Your task to perform on an android device: install app "WhatsApp Messenger" Image 0: 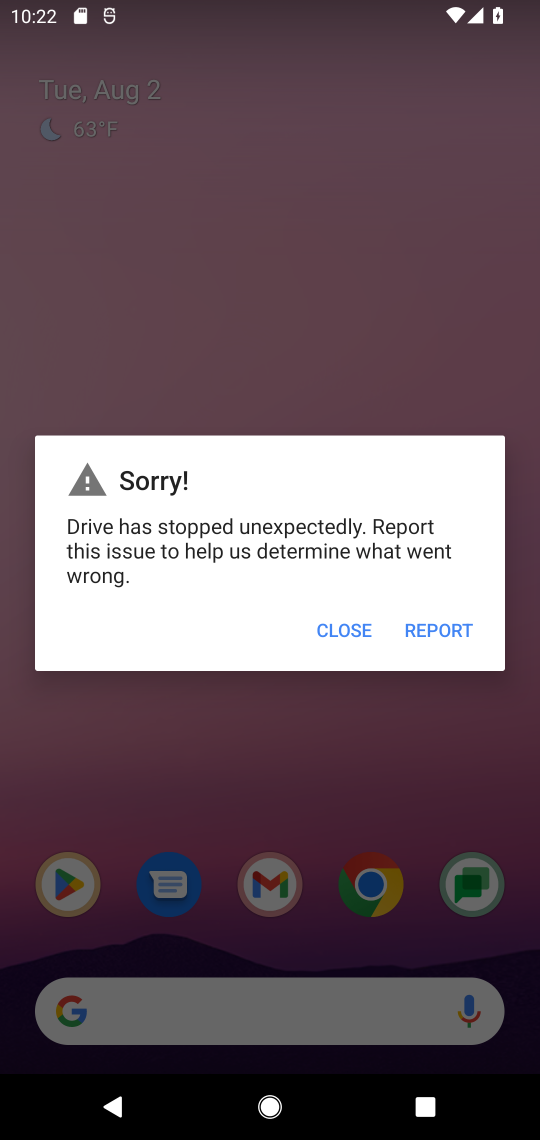
Step 0: click (332, 627)
Your task to perform on an android device: install app "WhatsApp Messenger" Image 1: 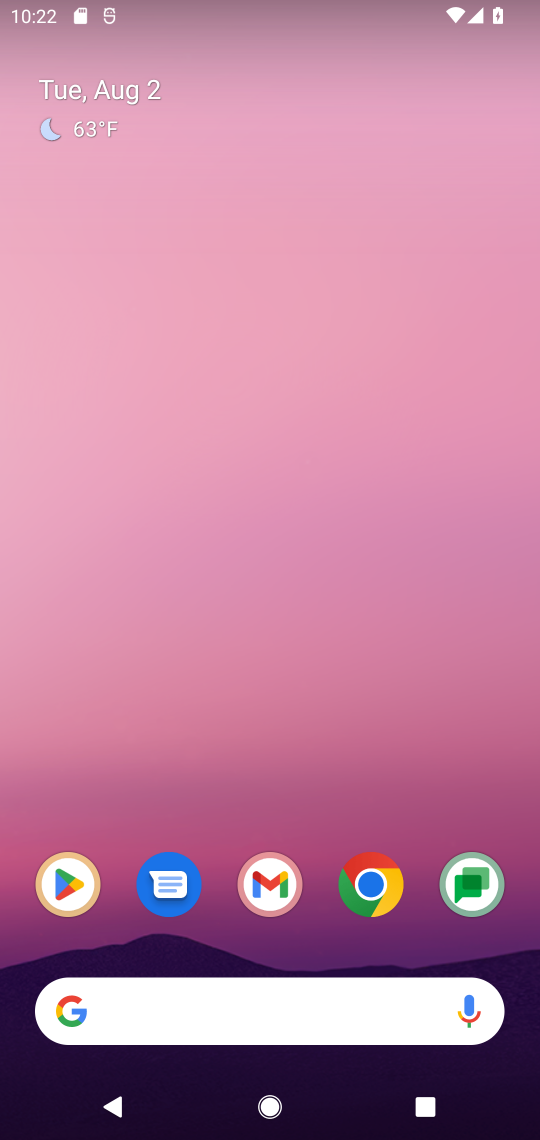
Step 1: click (78, 881)
Your task to perform on an android device: install app "WhatsApp Messenger" Image 2: 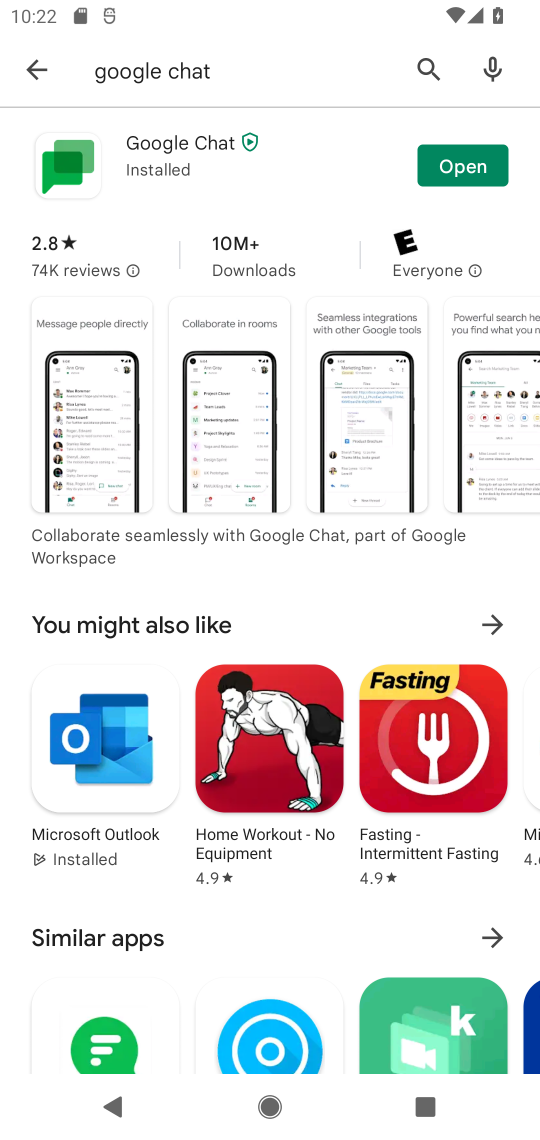
Step 2: click (235, 79)
Your task to perform on an android device: install app "WhatsApp Messenger" Image 3: 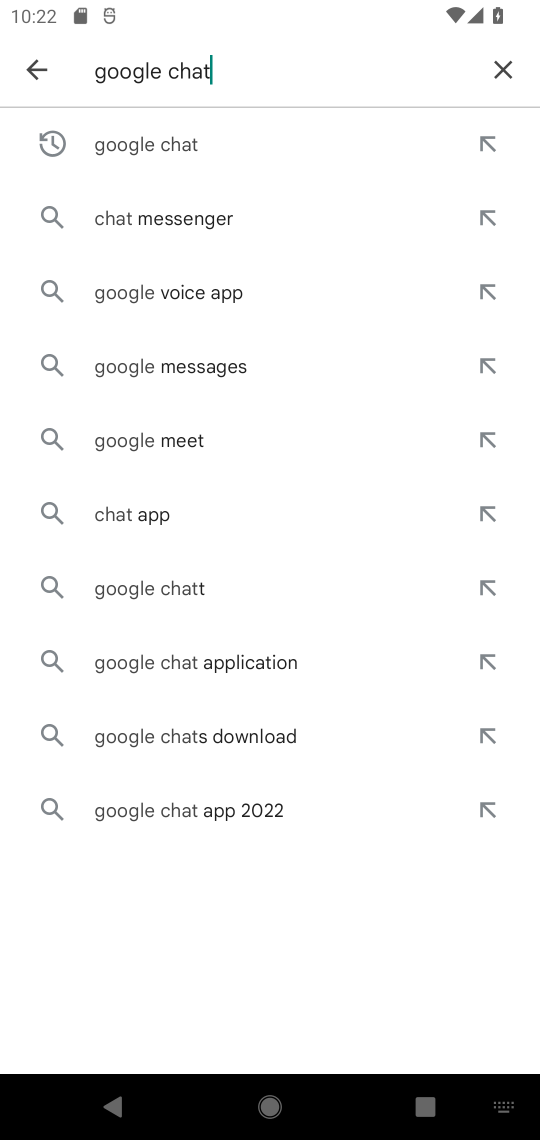
Step 3: click (509, 68)
Your task to perform on an android device: install app "WhatsApp Messenger" Image 4: 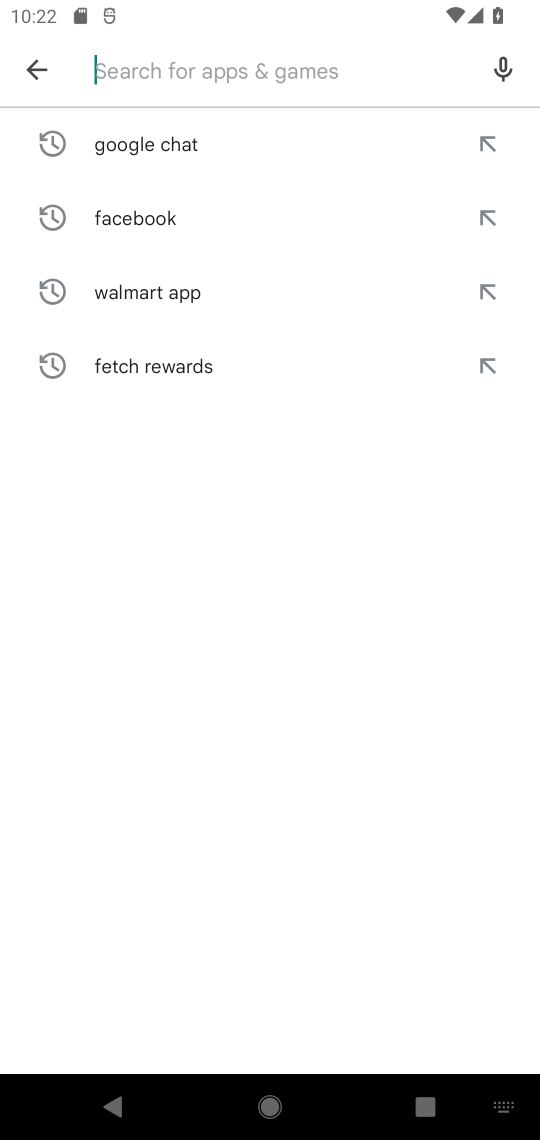
Step 4: type "whatsapp messenger"
Your task to perform on an android device: install app "WhatsApp Messenger" Image 5: 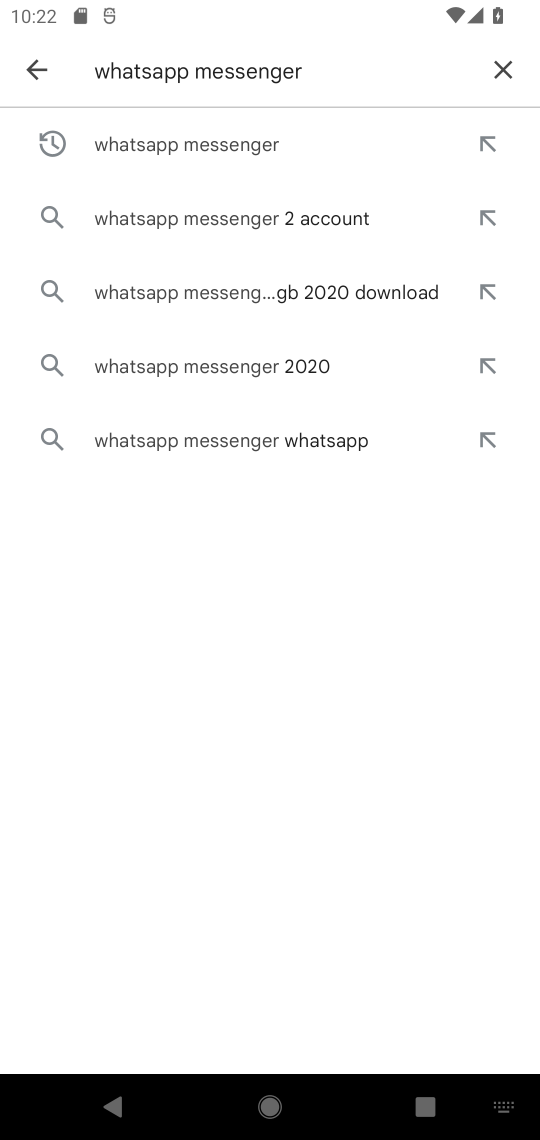
Step 5: click (267, 161)
Your task to perform on an android device: install app "WhatsApp Messenger" Image 6: 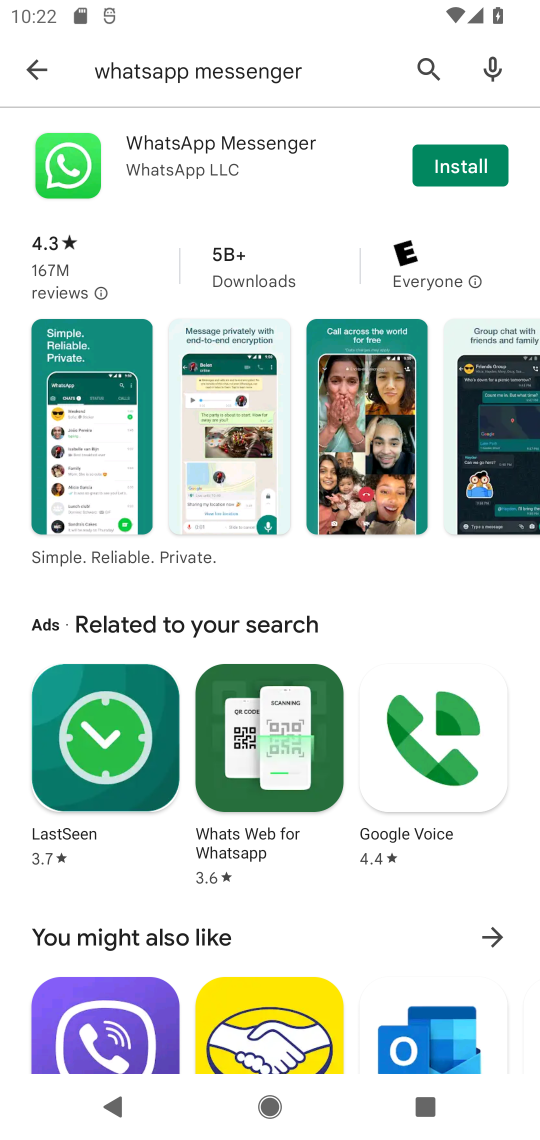
Step 6: click (475, 155)
Your task to perform on an android device: install app "WhatsApp Messenger" Image 7: 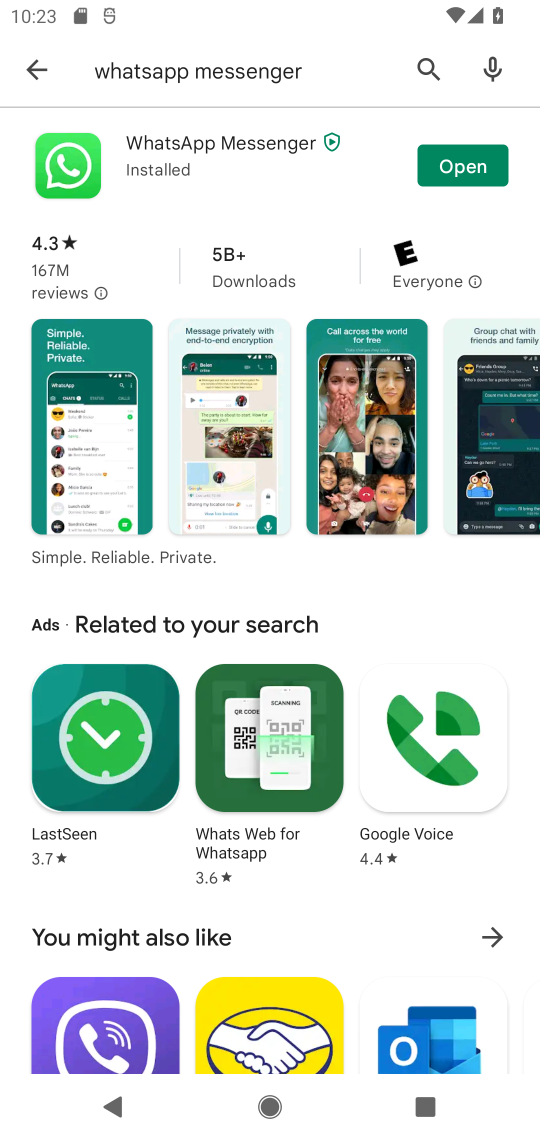
Step 7: task complete